Your task to perform on an android device: turn on showing notifications on the lock screen Image 0: 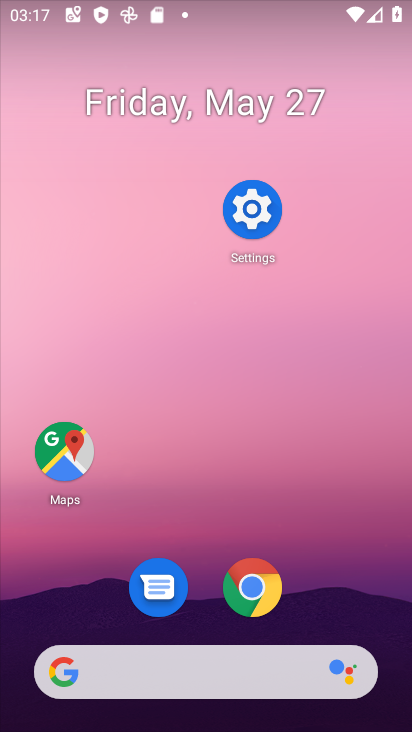
Step 0: drag from (353, 548) to (341, 239)
Your task to perform on an android device: turn on showing notifications on the lock screen Image 1: 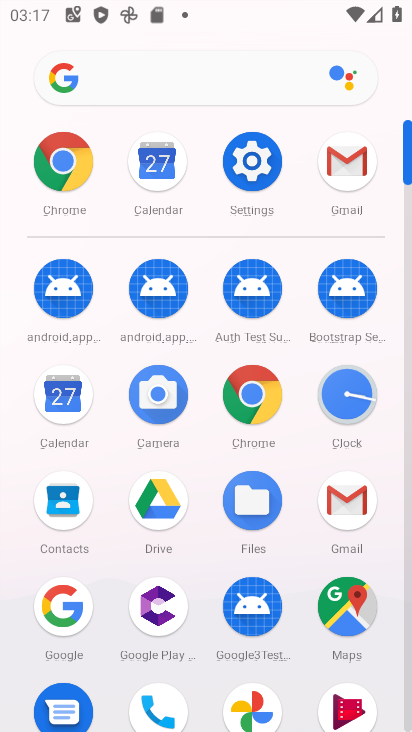
Step 1: click (257, 158)
Your task to perform on an android device: turn on showing notifications on the lock screen Image 2: 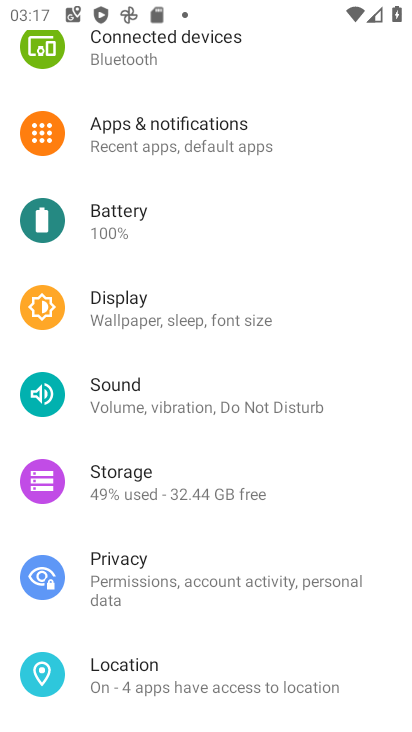
Step 2: click (242, 138)
Your task to perform on an android device: turn on showing notifications on the lock screen Image 3: 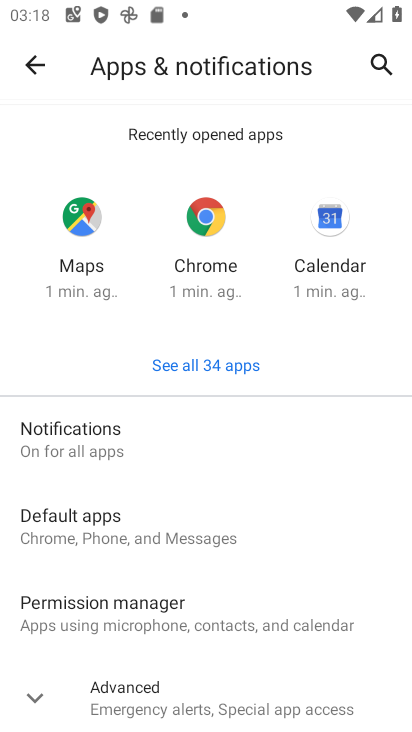
Step 3: drag from (302, 580) to (303, 184)
Your task to perform on an android device: turn on showing notifications on the lock screen Image 4: 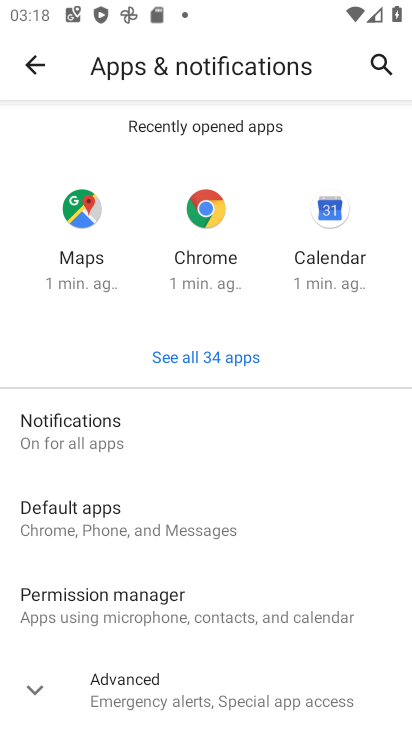
Step 4: click (98, 432)
Your task to perform on an android device: turn on showing notifications on the lock screen Image 5: 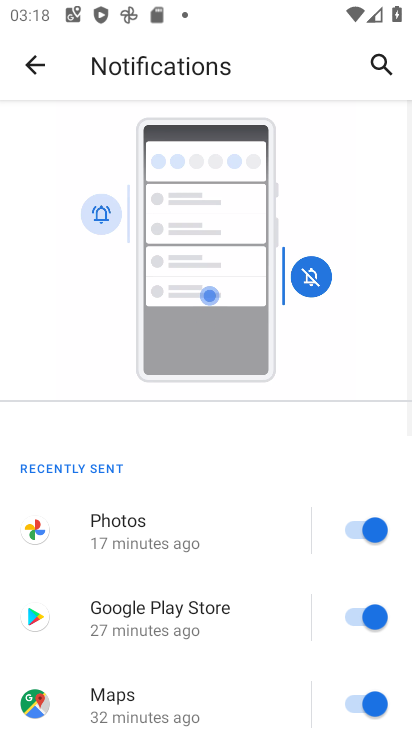
Step 5: drag from (245, 670) to (222, 327)
Your task to perform on an android device: turn on showing notifications on the lock screen Image 6: 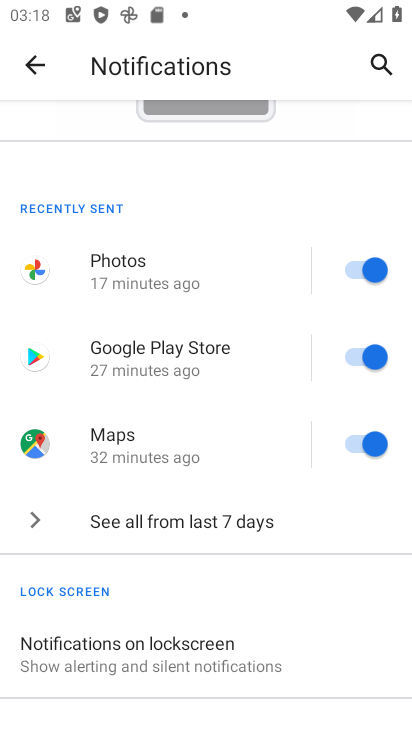
Step 6: click (142, 649)
Your task to perform on an android device: turn on showing notifications on the lock screen Image 7: 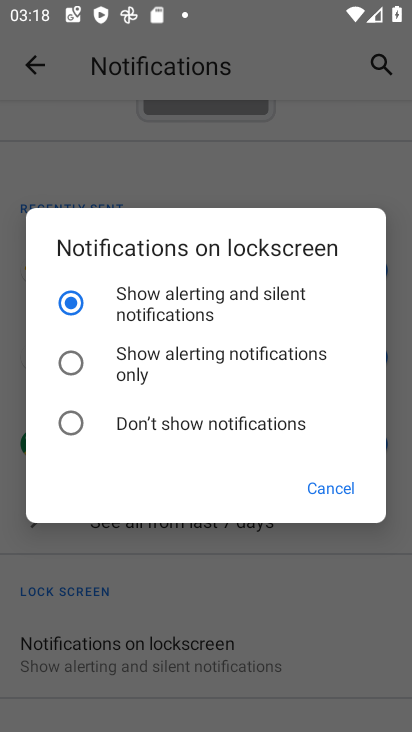
Step 7: task complete